Your task to perform on an android device: Open Chrome and go to settings Image 0: 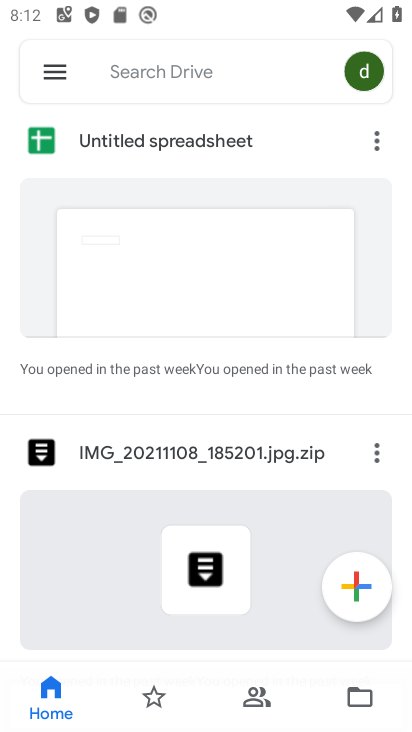
Step 0: press home button
Your task to perform on an android device: Open Chrome and go to settings Image 1: 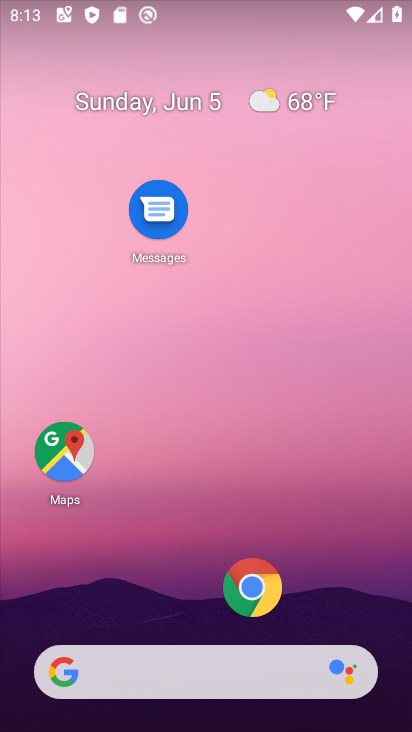
Step 1: click (254, 584)
Your task to perform on an android device: Open Chrome and go to settings Image 2: 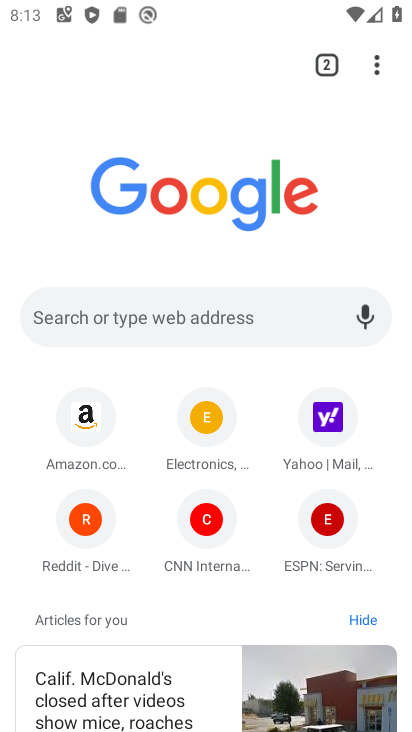
Step 2: click (378, 52)
Your task to perform on an android device: Open Chrome and go to settings Image 3: 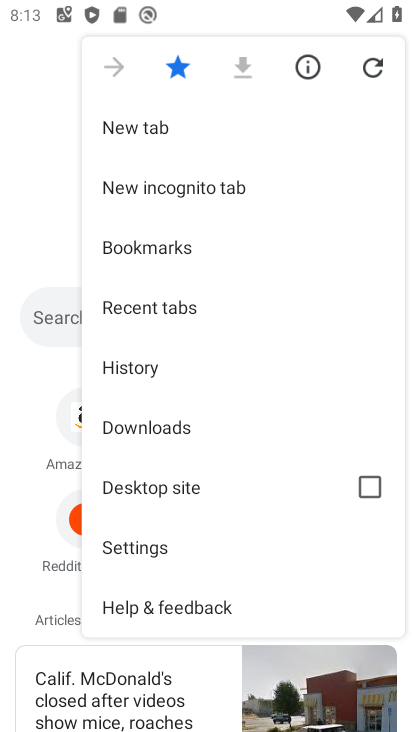
Step 3: click (178, 541)
Your task to perform on an android device: Open Chrome and go to settings Image 4: 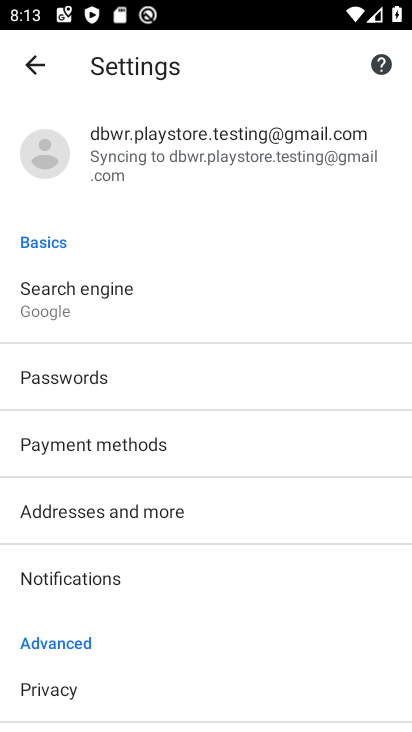
Step 4: task complete